Your task to perform on an android device: Is it going to rain tomorrow? Image 0: 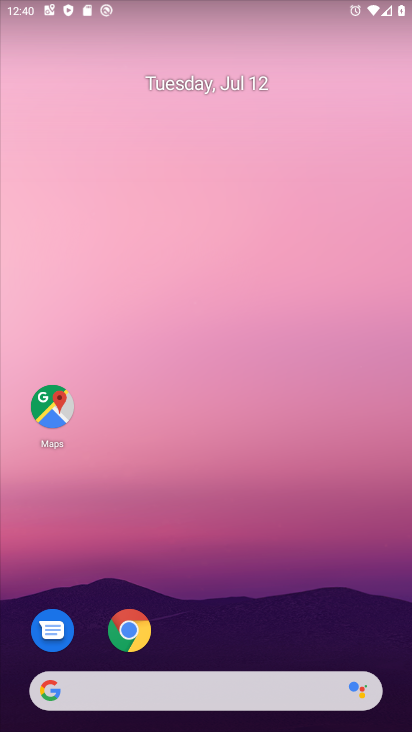
Step 0: drag from (240, 699) to (229, 1)
Your task to perform on an android device: Is it going to rain tomorrow? Image 1: 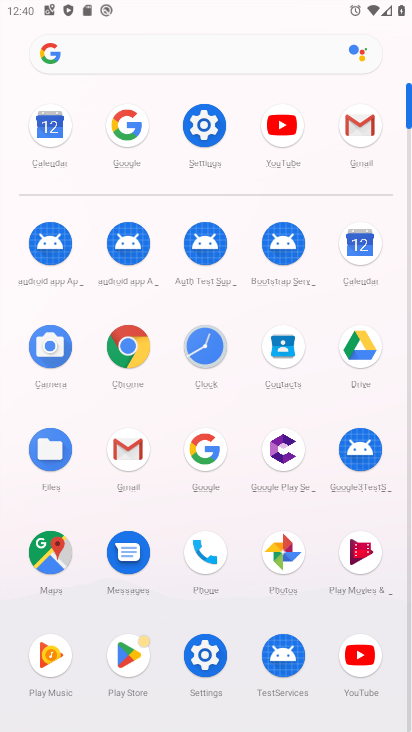
Step 1: click (201, 447)
Your task to perform on an android device: Is it going to rain tomorrow? Image 2: 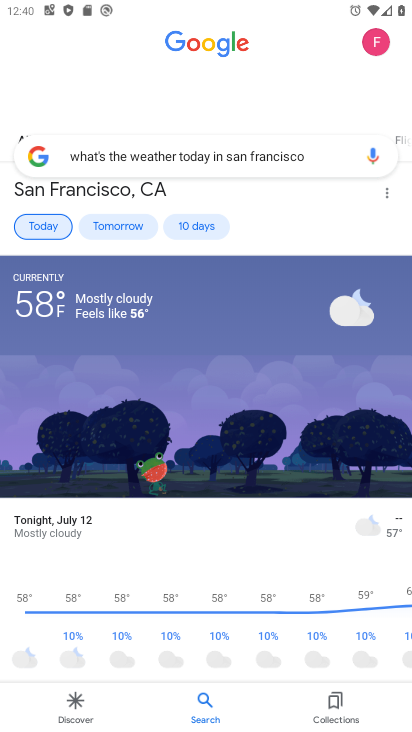
Step 2: click (310, 163)
Your task to perform on an android device: Is it going to rain tomorrow? Image 3: 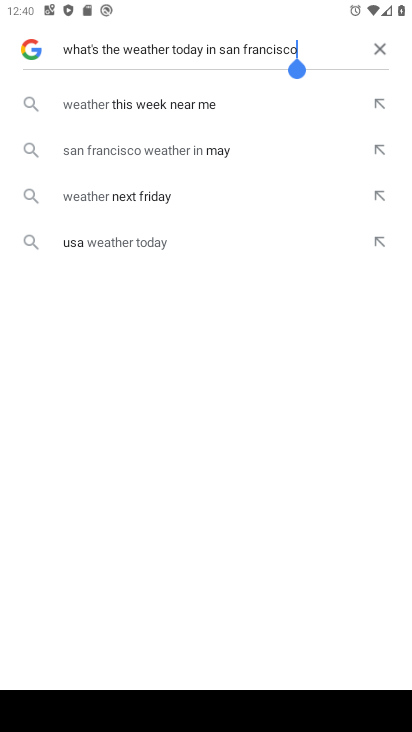
Step 3: click (383, 51)
Your task to perform on an android device: Is it going to rain tomorrow? Image 4: 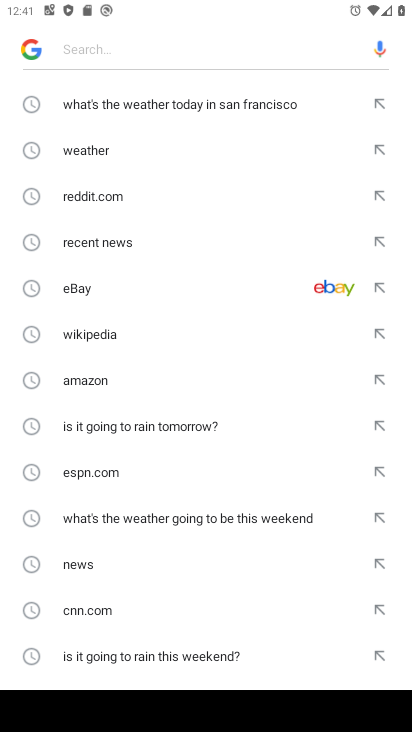
Step 4: type "Is it going to rain tomorrow?"
Your task to perform on an android device: Is it going to rain tomorrow? Image 5: 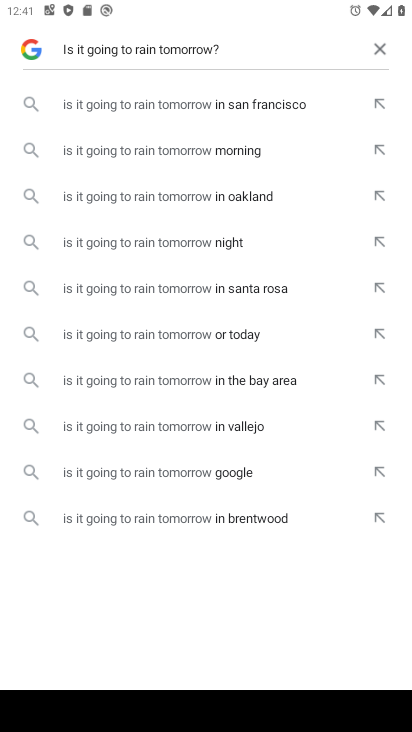
Step 5: click (253, 103)
Your task to perform on an android device: Is it going to rain tomorrow? Image 6: 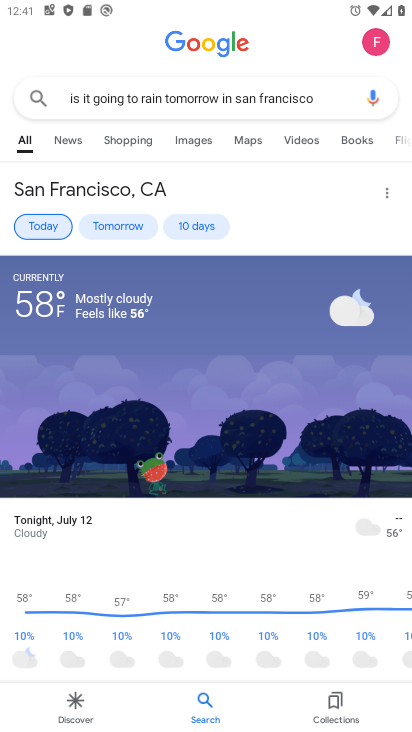
Step 6: click (128, 222)
Your task to perform on an android device: Is it going to rain tomorrow? Image 7: 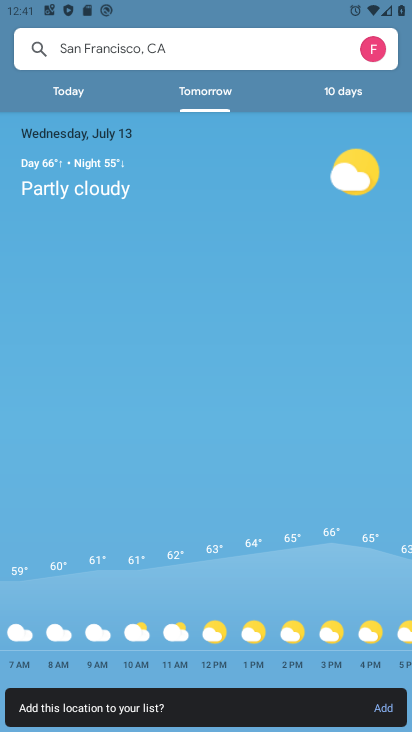
Step 7: task complete